Your task to perform on an android device: Open Reddit.com Image 0: 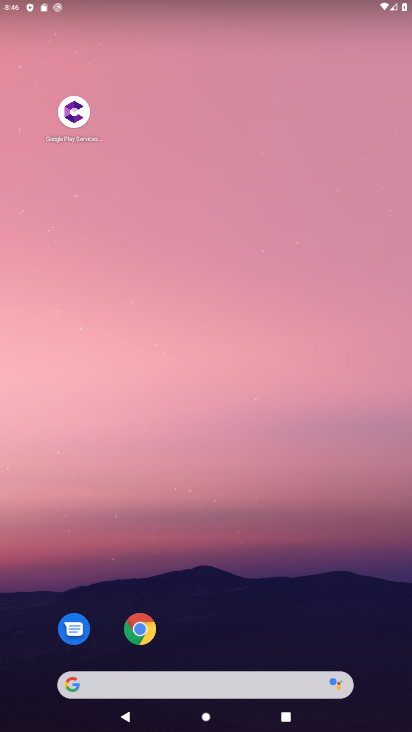
Step 0: click (139, 630)
Your task to perform on an android device: Open Reddit.com Image 1: 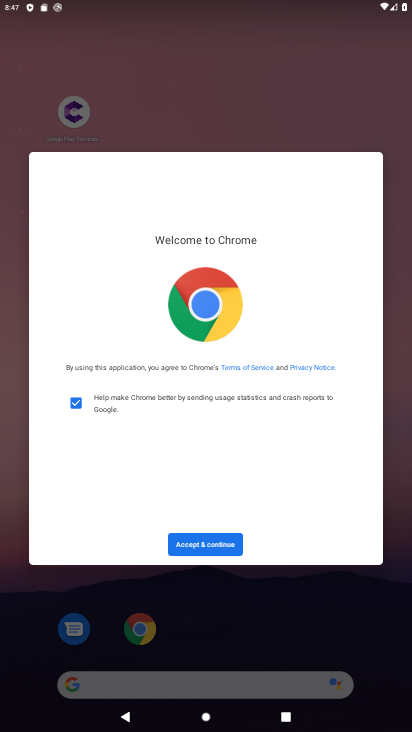
Step 1: click (205, 539)
Your task to perform on an android device: Open Reddit.com Image 2: 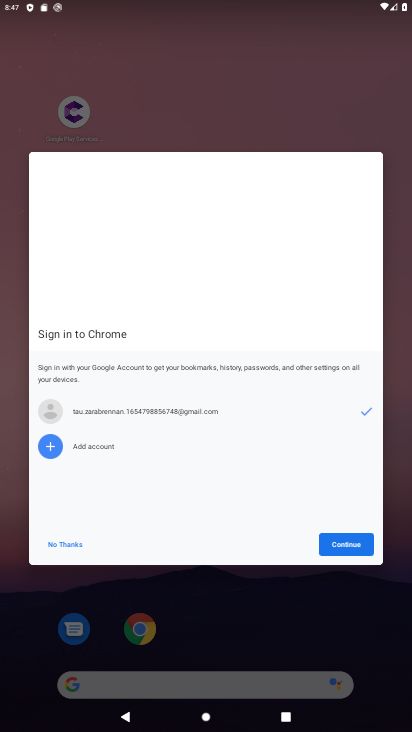
Step 2: click (352, 541)
Your task to perform on an android device: Open Reddit.com Image 3: 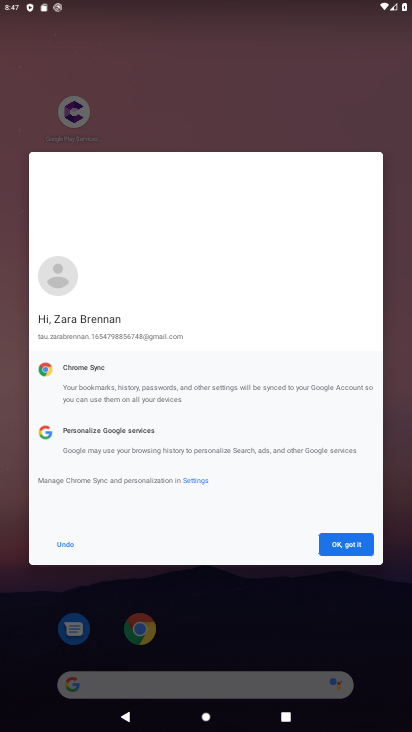
Step 3: click (352, 541)
Your task to perform on an android device: Open Reddit.com Image 4: 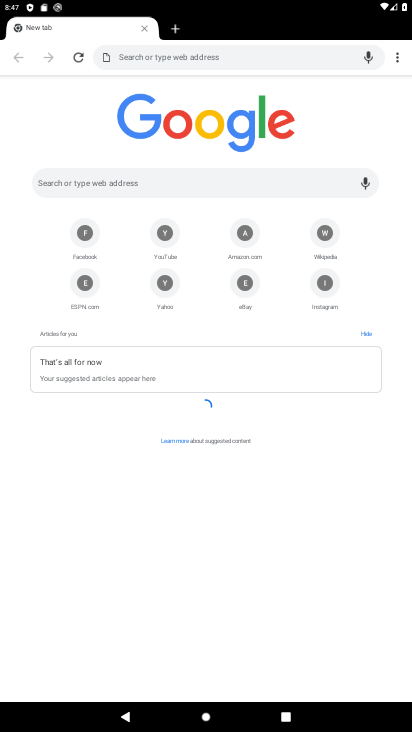
Step 4: click (137, 185)
Your task to perform on an android device: Open Reddit.com Image 5: 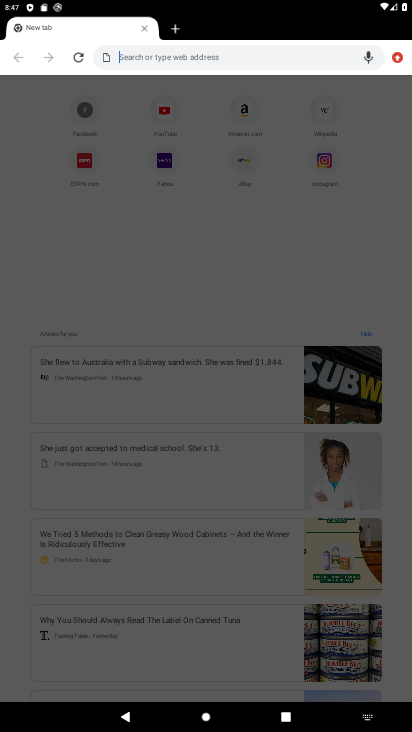
Step 5: type "Reddit.com"
Your task to perform on an android device: Open Reddit.com Image 6: 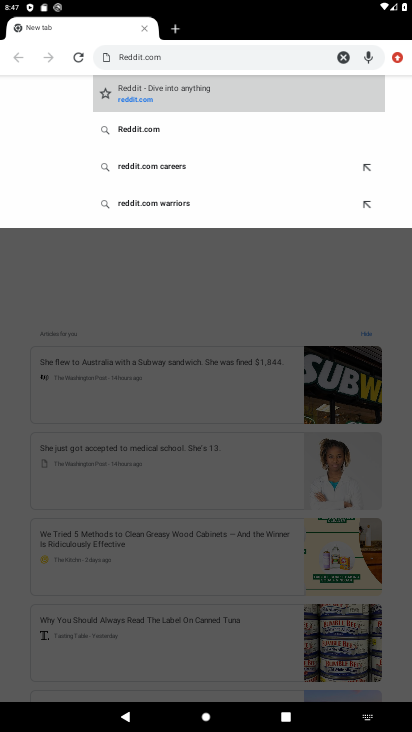
Step 6: click (150, 86)
Your task to perform on an android device: Open Reddit.com Image 7: 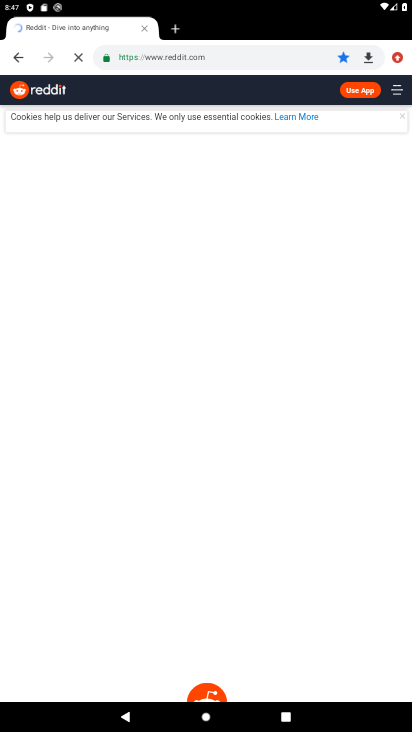
Step 7: task complete